Your task to perform on an android device: Open display settings Image 0: 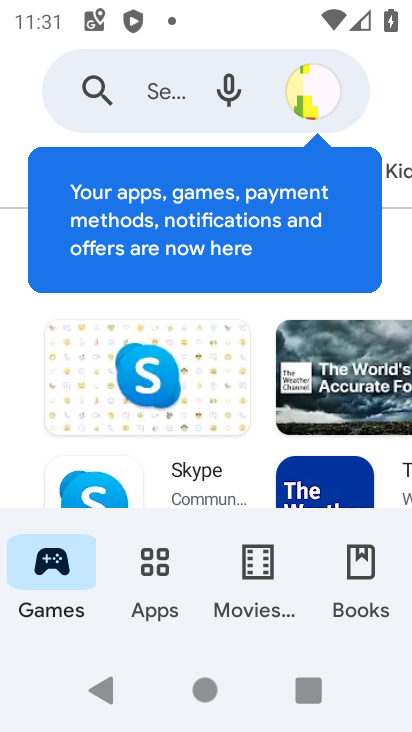
Step 0: press home button
Your task to perform on an android device: Open display settings Image 1: 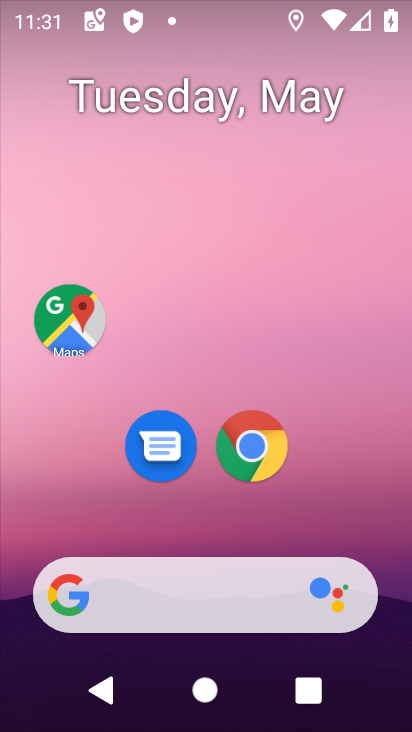
Step 1: drag from (229, 718) to (240, 211)
Your task to perform on an android device: Open display settings Image 2: 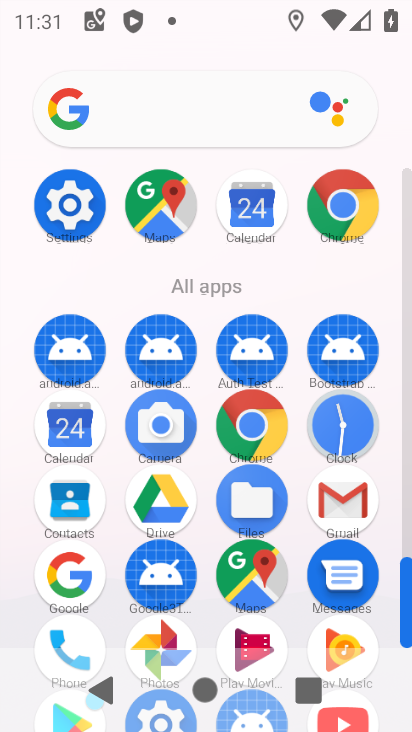
Step 2: click (66, 210)
Your task to perform on an android device: Open display settings Image 3: 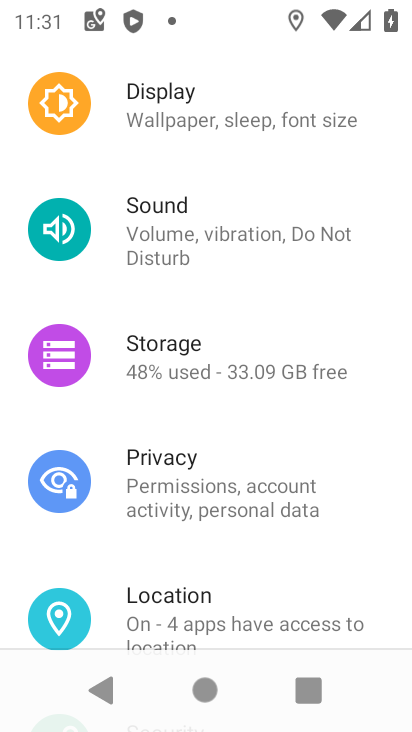
Step 3: click (185, 111)
Your task to perform on an android device: Open display settings Image 4: 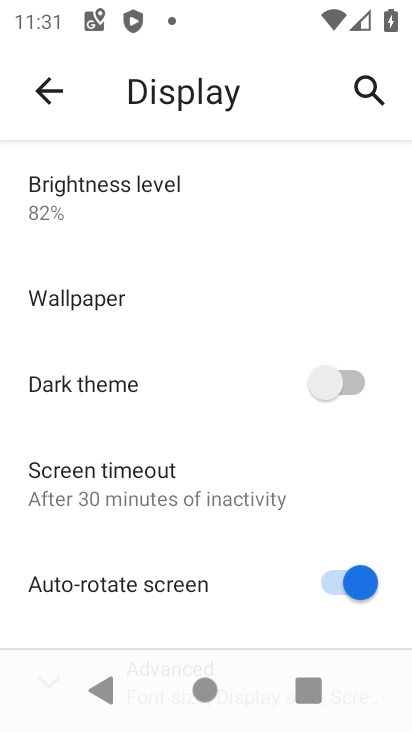
Step 4: task complete